Your task to perform on an android device: Open Yahoo.com Image 0: 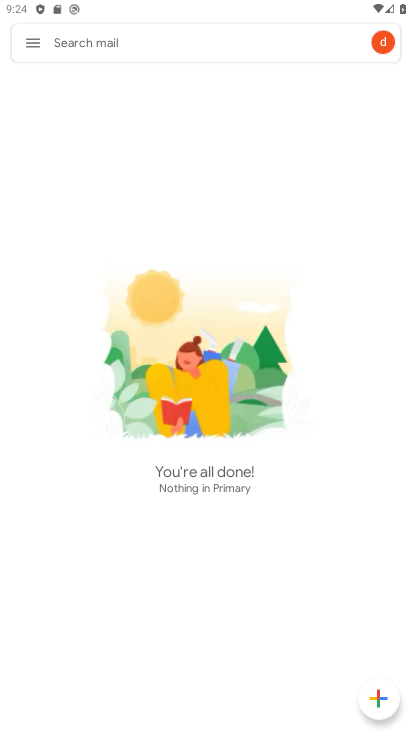
Step 0: press home button
Your task to perform on an android device: Open Yahoo.com Image 1: 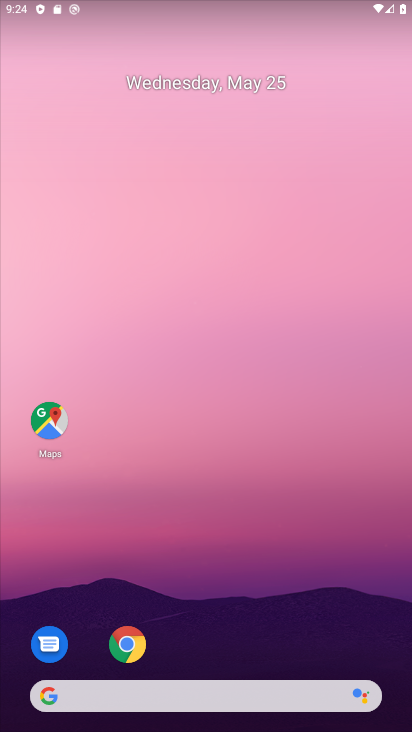
Step 1: click (130, 640)
Your task to perform on an android device: Open Yahoo.com Image 2: 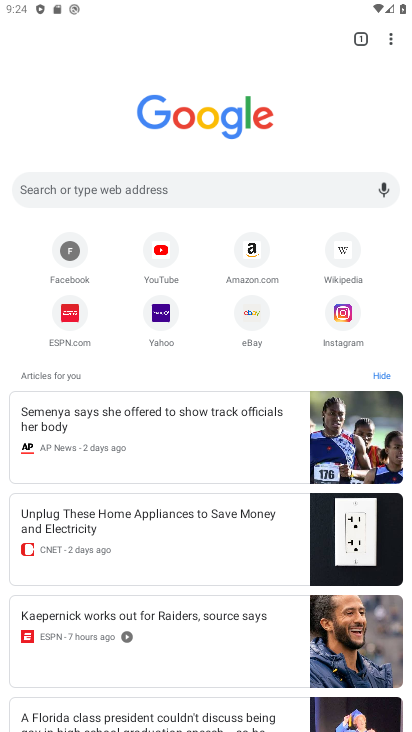
Step 2: click (156, 310)
Your task to perform on an android device: Open Yahoo.com Image 3: 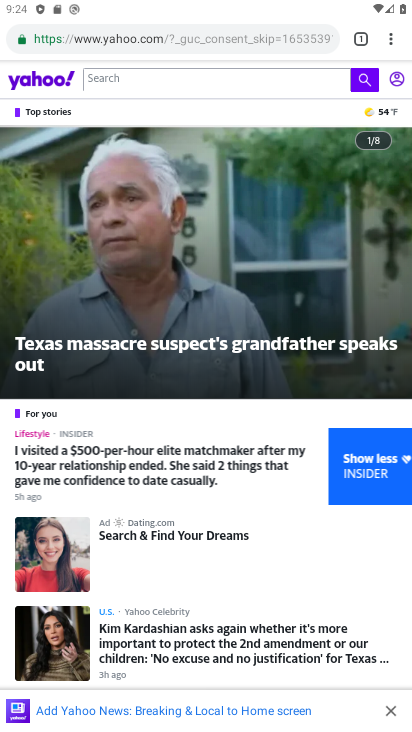
Step 3: task complete